Your task to perform on an android device: What's the weather going to be tomorrow? Image 0: 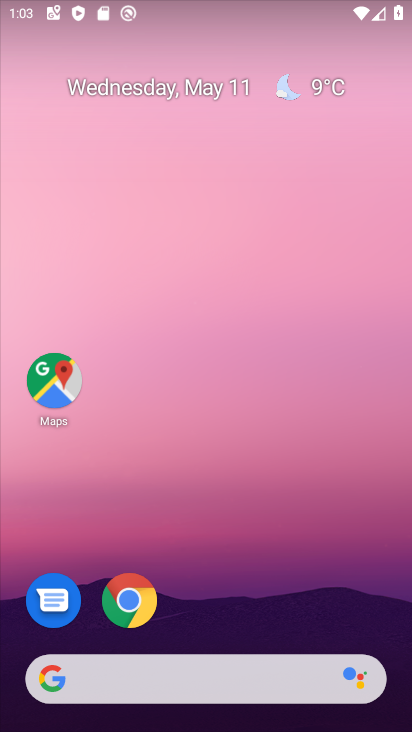
Step 0: click (198, 673)
Your task to perform on an android device: What's the weather going to be tomorrow? Image 1: 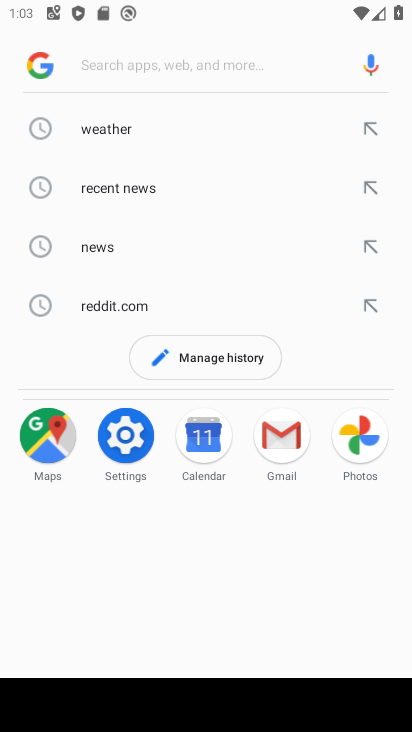
Step 1: type "What's the weather going to be tomorrow?"
Your task to perform on an android device: What's the weather going to be tomorrow? Image 2: 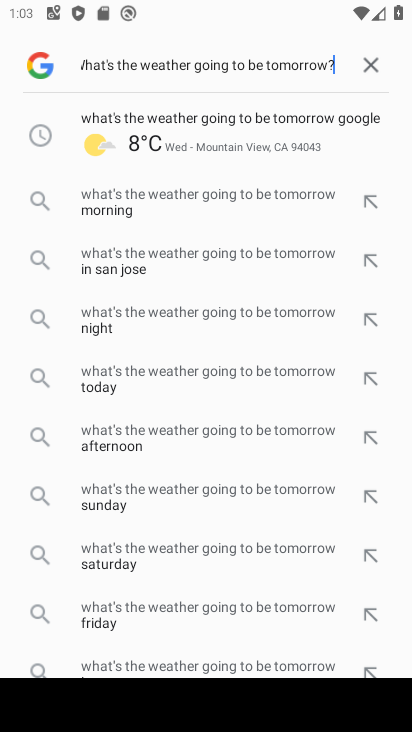
Step 2: click (232, 147)
Your task to perform on an android device: What's the weather going to be tomorrow? Image 3: 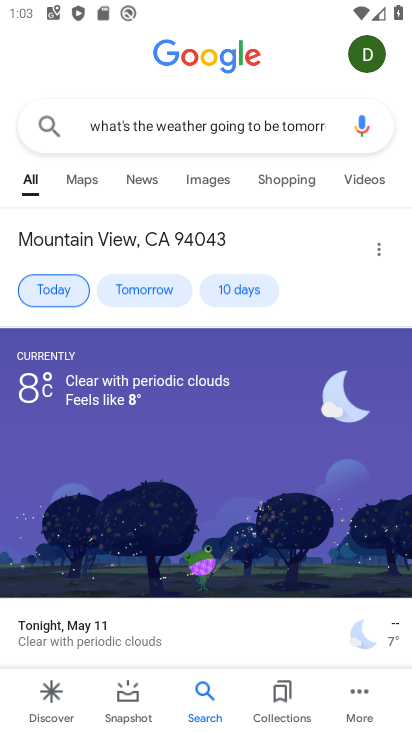
Step 3: task complete